Your task to perform on an android device: find which apps use the phone's location Image 0: 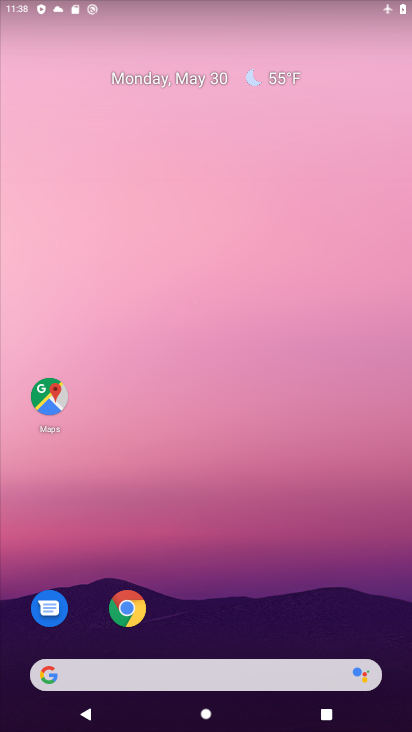
Step 0: drag from (290, 628) to (303, 0)
Your task to perform on an android device: find which apps use the phone's location Image 1: 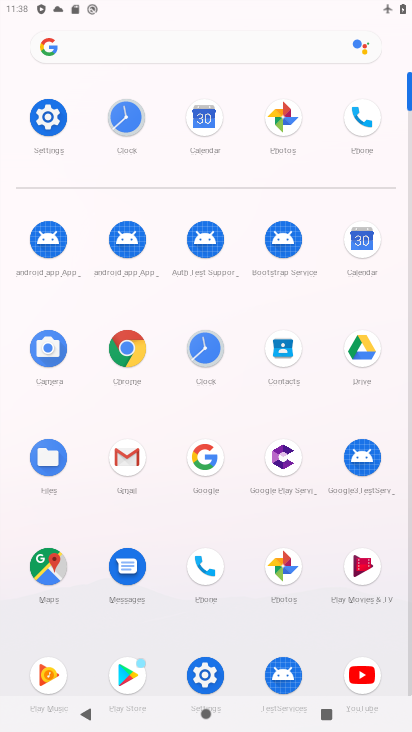
Step 1: click (198, 570)
Your task to perform on an android device: find which apps use the phone's location Image 2: 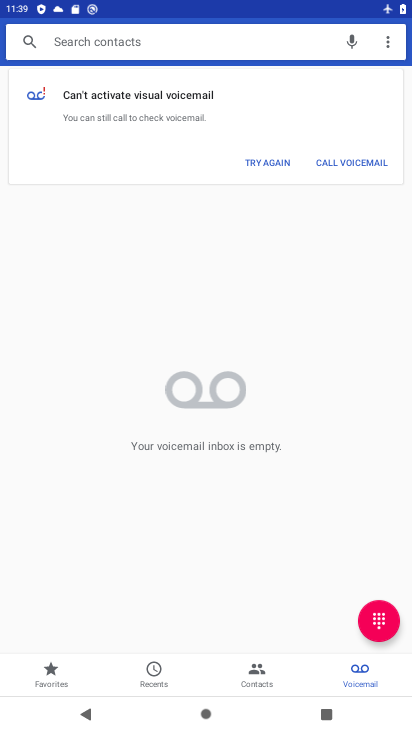
Step 2: press home button
Your task to perform on an android device: find which apps use the phone's location Image 3: 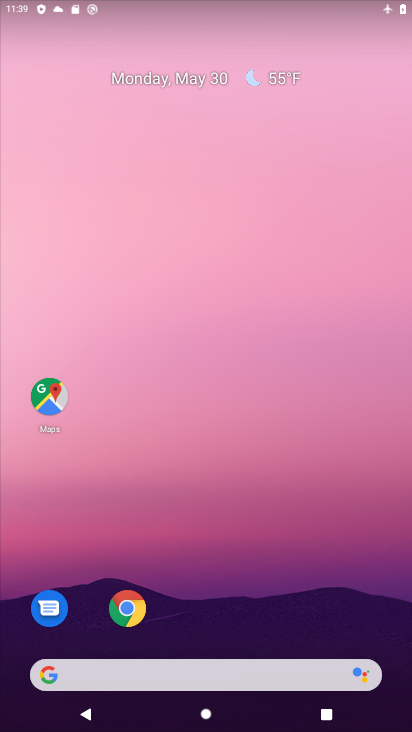
Step 3: drag from (319, 594) to (267, 9)
Your task to perform on an android device: find which apps use the phone's location Image 4: 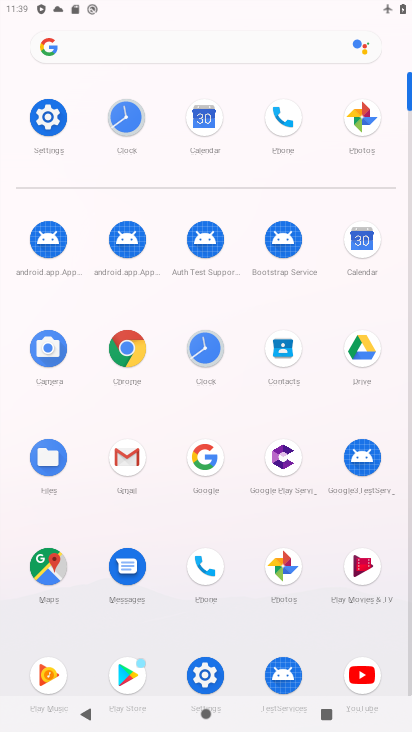
Step 4: click (45, 115)
Your task to perform on an android device: find which apps use the phone's location Image 5: 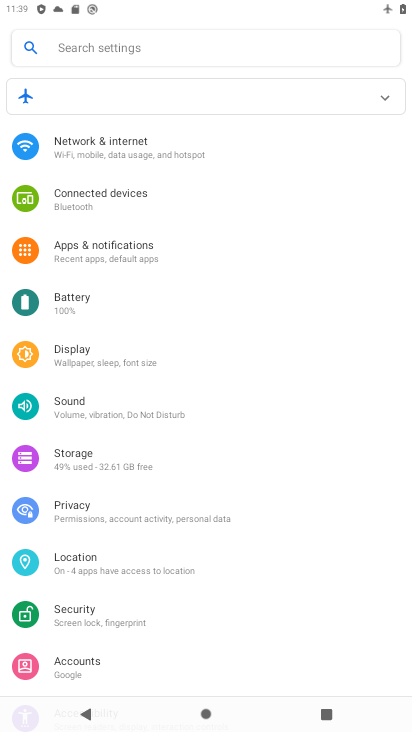
Step 5: click (93, 566)
Your task to perform on an android device: find which apps use the phone's location Image 6: 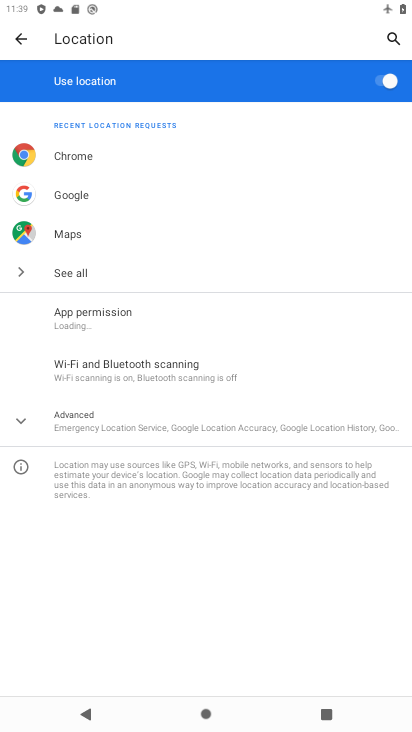
Step 6: click (65, 315)
Your task to perform on an android device: find which apps use the phone's location Image 7: 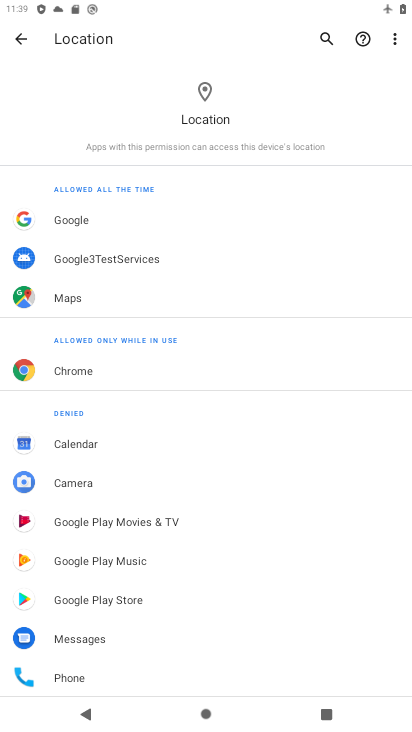
Step 7: task complete